Your task to perform on an android device: find snoozed emails in the gmail app Image 0: 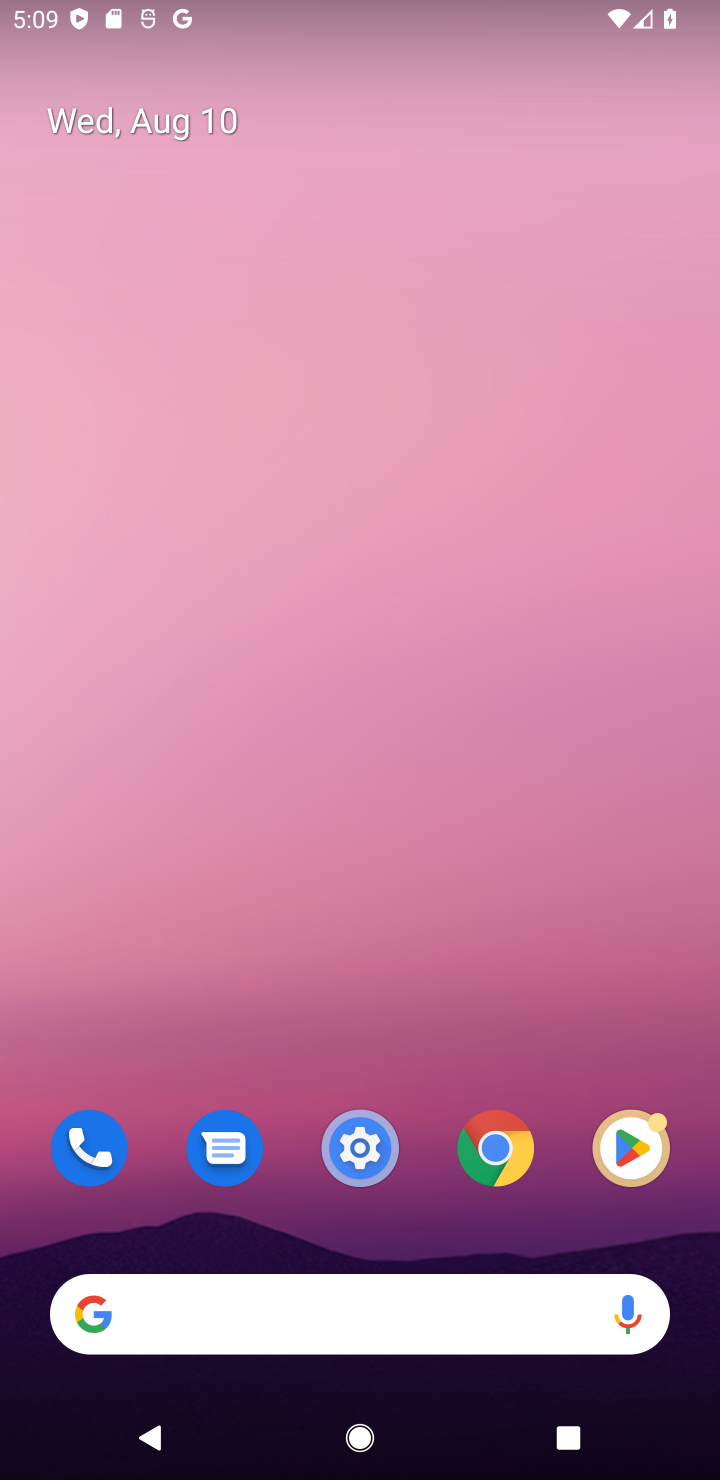
Step 0: drag from (408, 1200) to (234, 197)
Your task to perform on an android device: find snoozed emails in the gmail app Image 1: 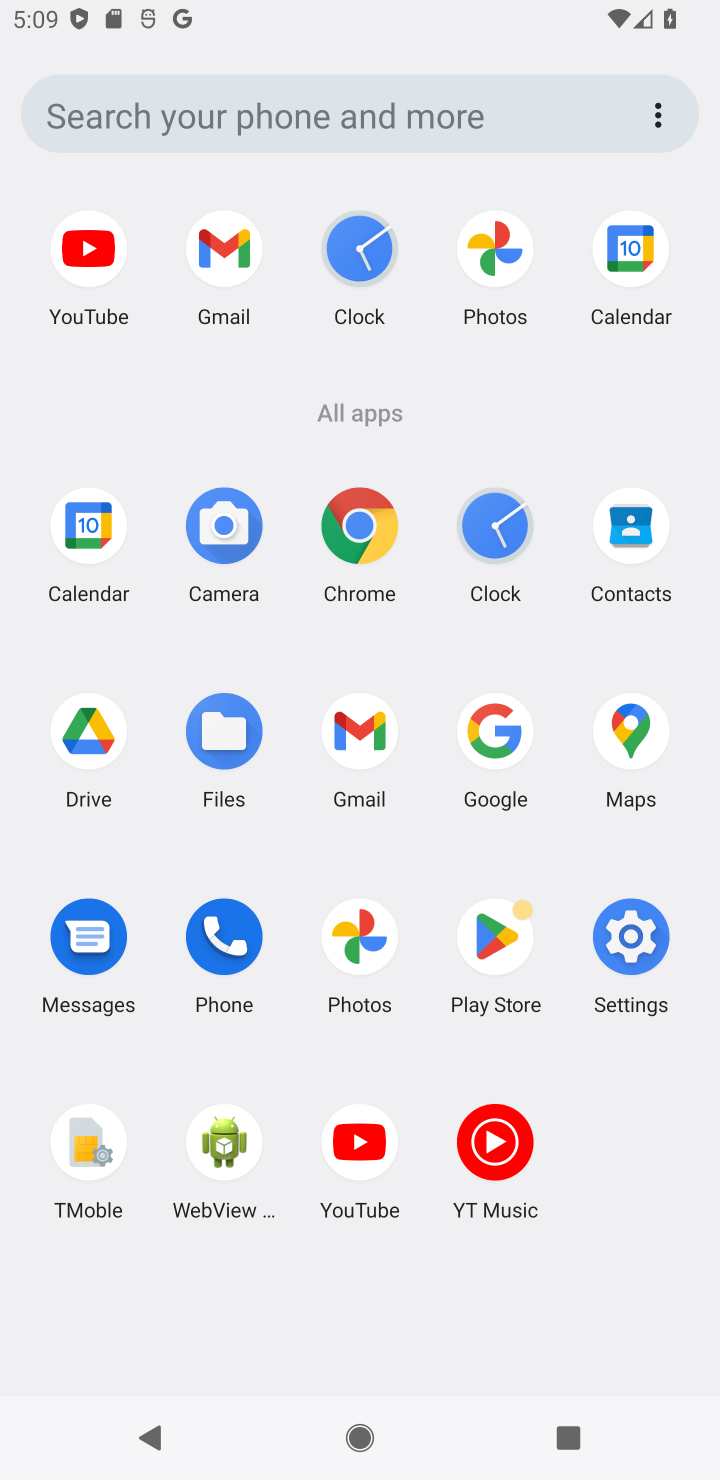
Step 1: click (230, 268)
Your task to perform on an android device: find snoozed emails in the gmail app Image 2: 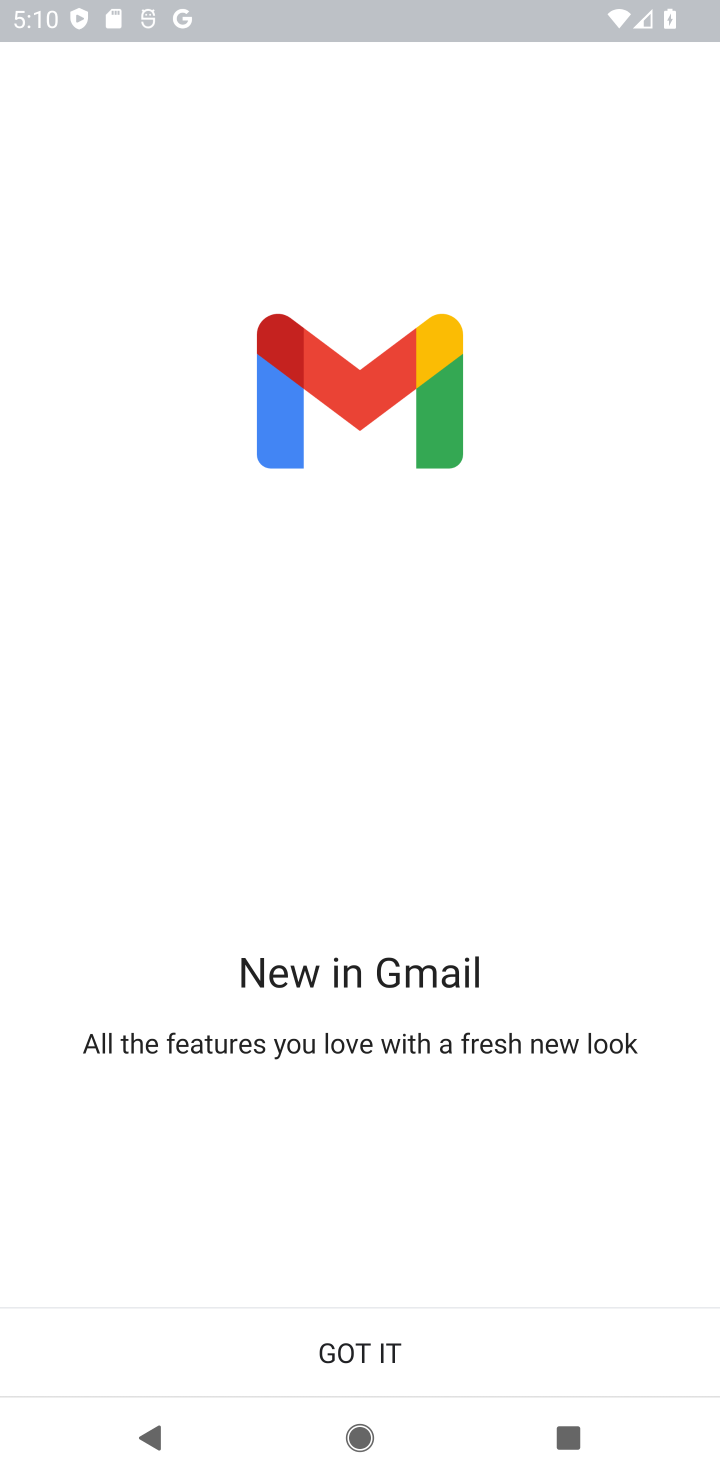
Step 2: click (285, 1349)
Your task to perform on an android device: find snoozed emails in the gmail app Image 3: 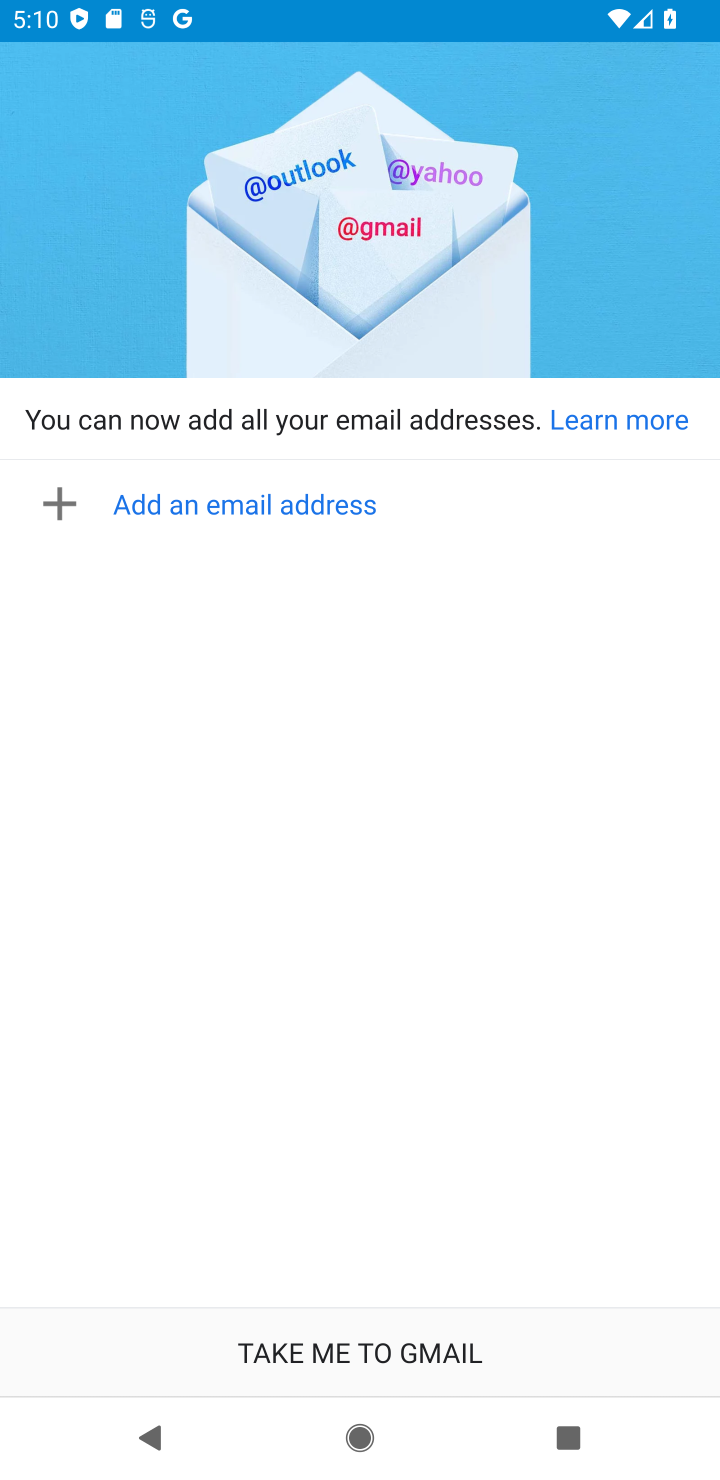
Step 3: click (285, 1349)
Your task to perform on an android device: find snoozed emails in the gmail app Image 4: 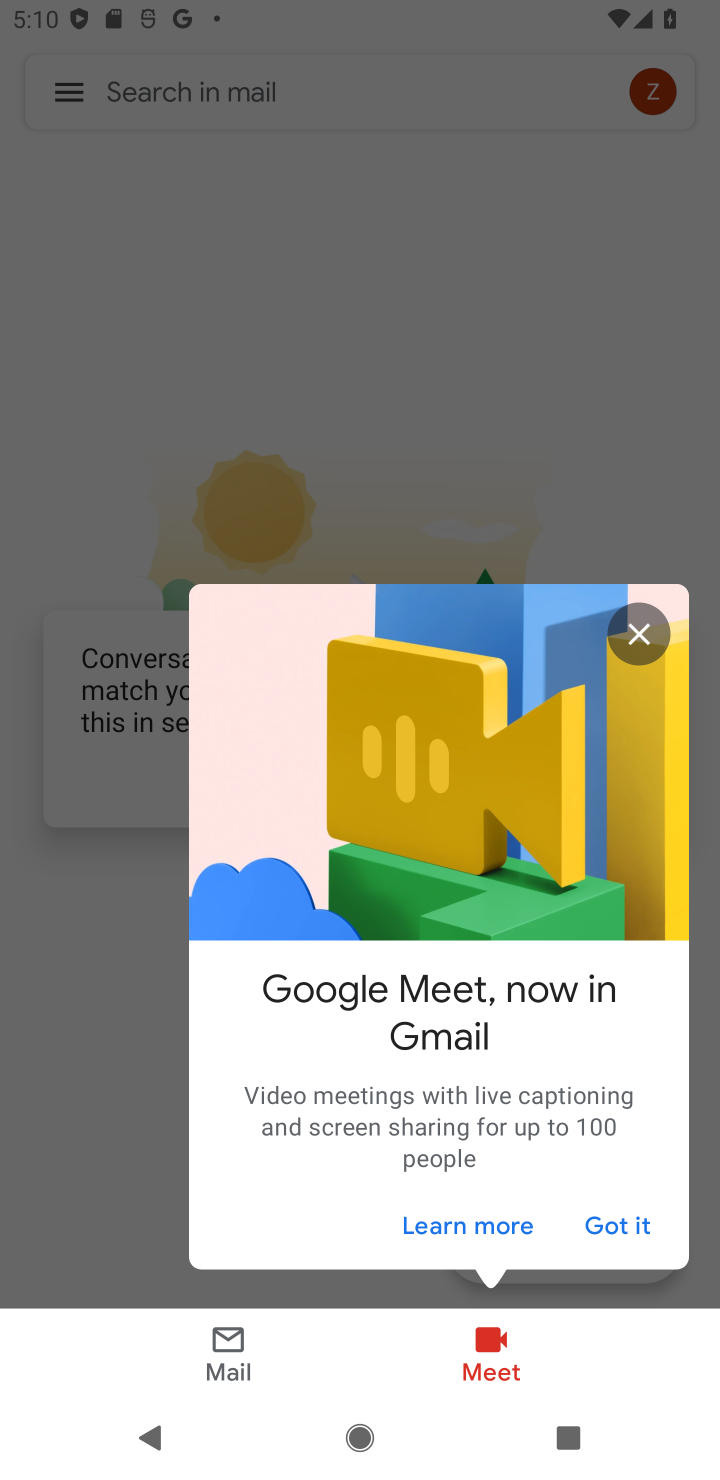
Step 4: click (229, 1346)
Your task to perform on an android device: find snoozed emails in the gmail app Image 5: 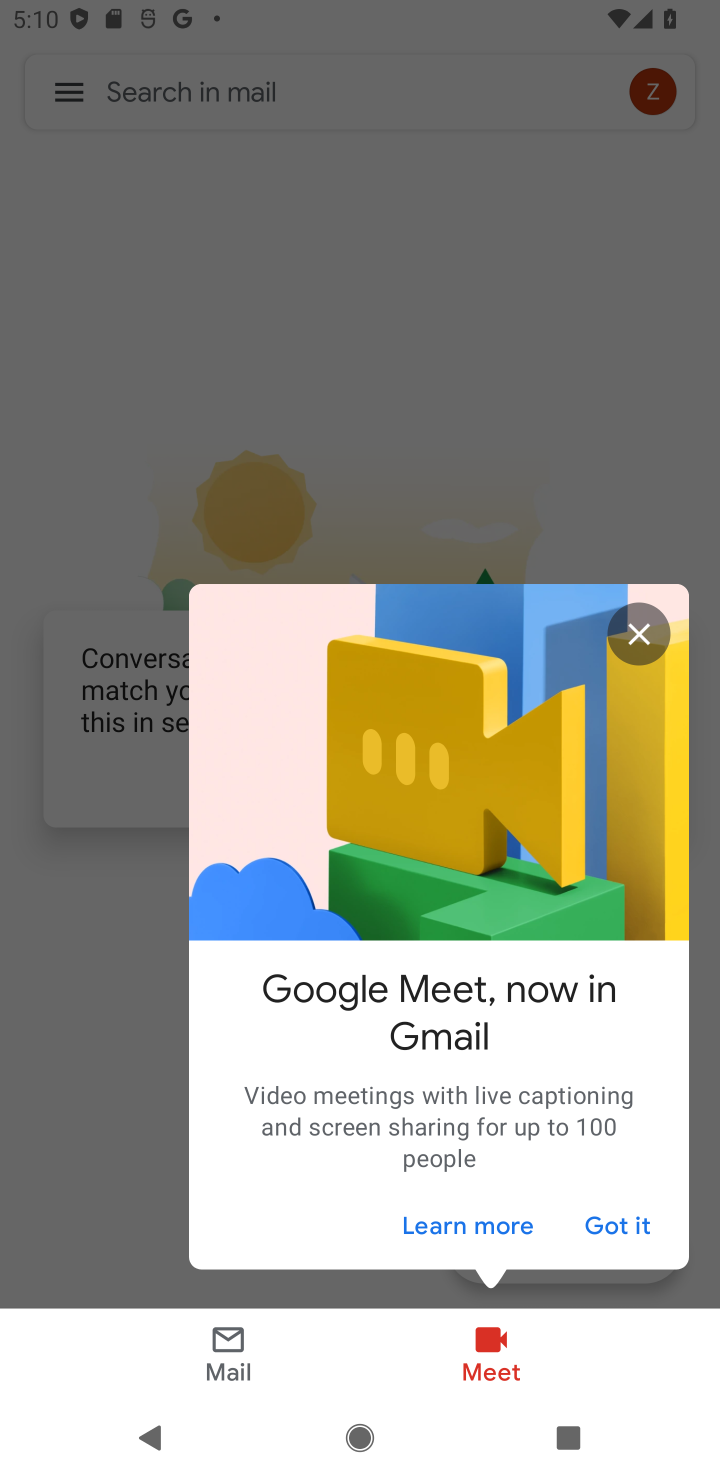
Step 5: click (597, 1216)
Your task to perform on an android device: find snoozed emails in the gmail app Image 6: 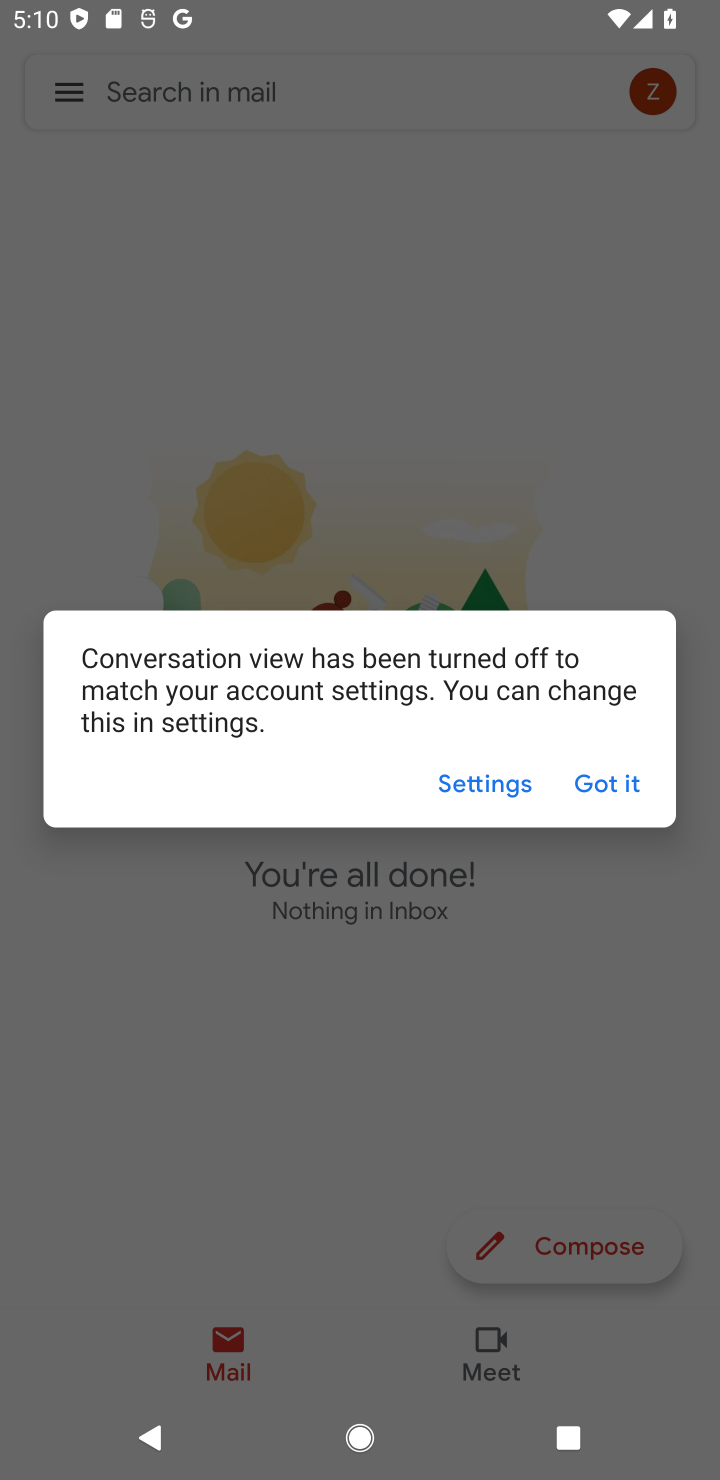
Step 6: click (236, 1367)
Your task to perform on an android device: find snoozed emails in the gmail app Image 7: 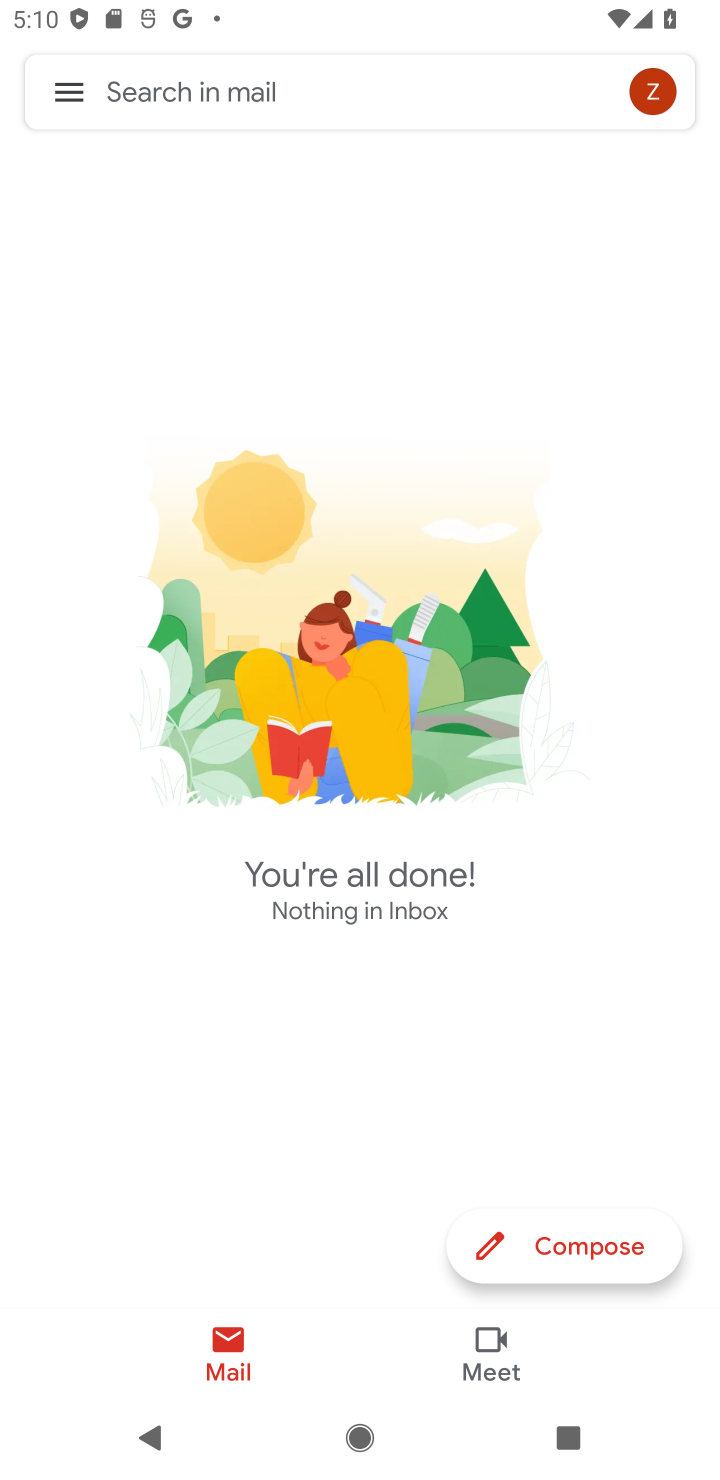
Step 7: click (62, 83)
Your task to perform on an android device: find snoozed emails in the gmail app Image 8: 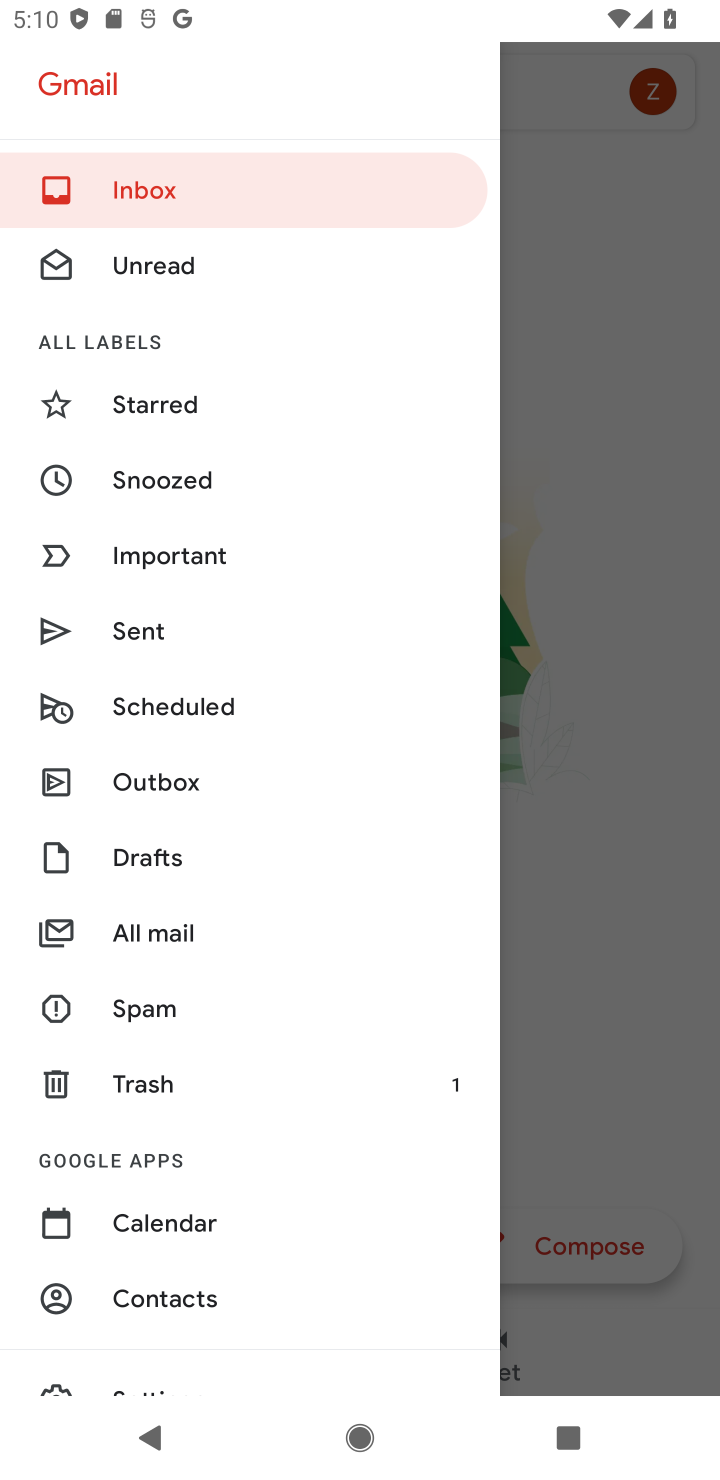
Step 8: click (118, 480)
Your task to perform on an android device: find snoozed emails in the gmail app Image 9: 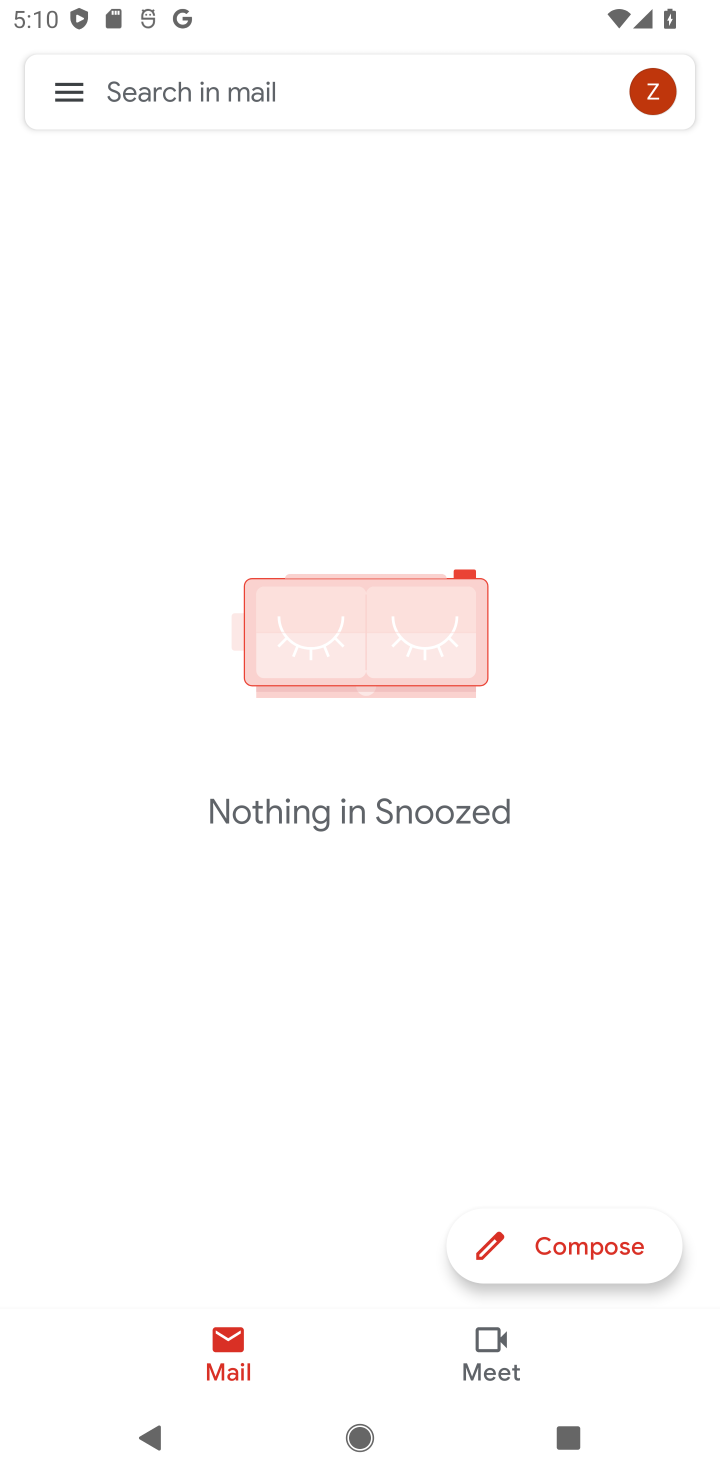
Step 9: task complete